Your task to perform on an android device: Open the web browser Image 0: 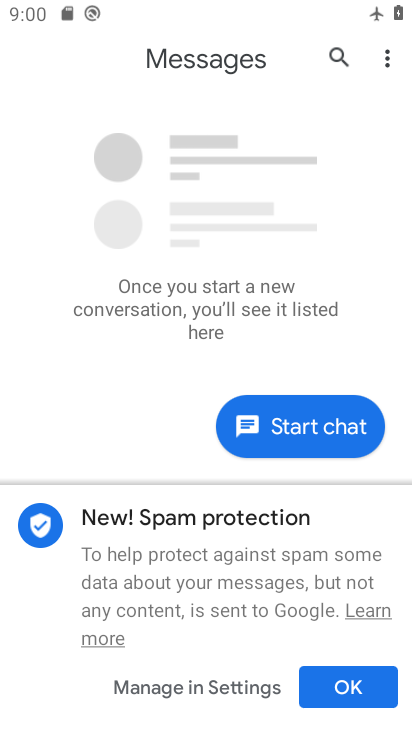
Step 0: press home button
Your task to perform on an android device: Open the web browser Image 1: 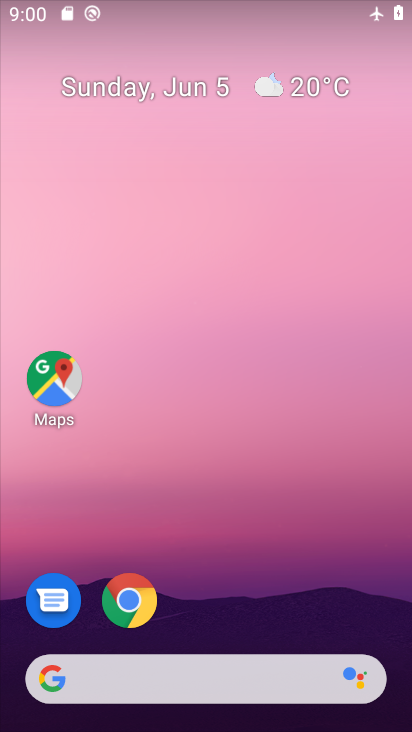
Step 1: click (263, 675)
Your task to perform on an android device: Open the web browser Image 2: 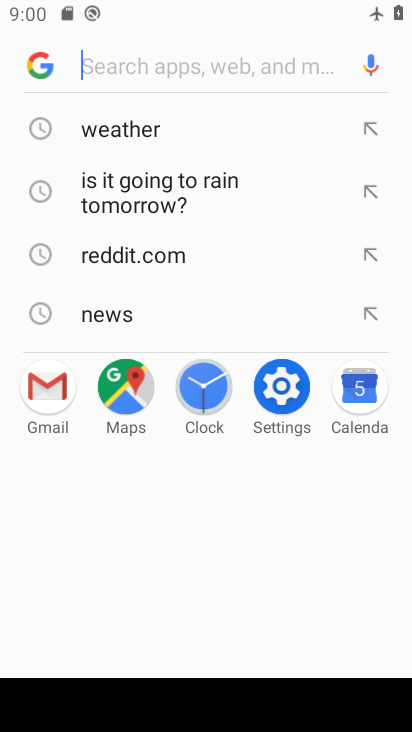
Step 2: task complete